Your task to perform on an android device: Do I have any events tomorrow? Image 0: 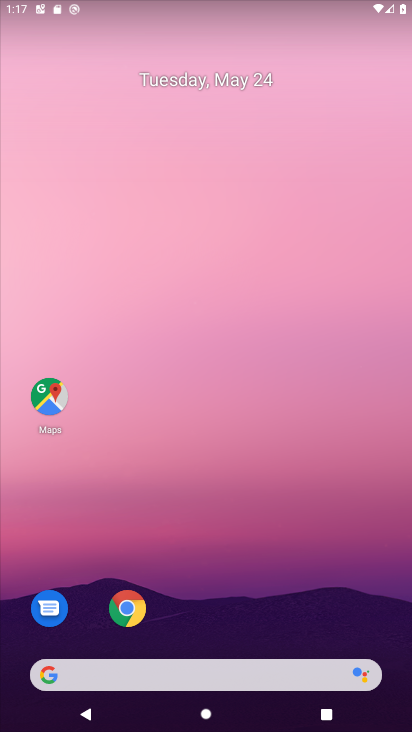
Step 0: drag from (270, 612) to (256, 125)
Your task to perform on an android device: Do I have any events tomorrow? Image 1: 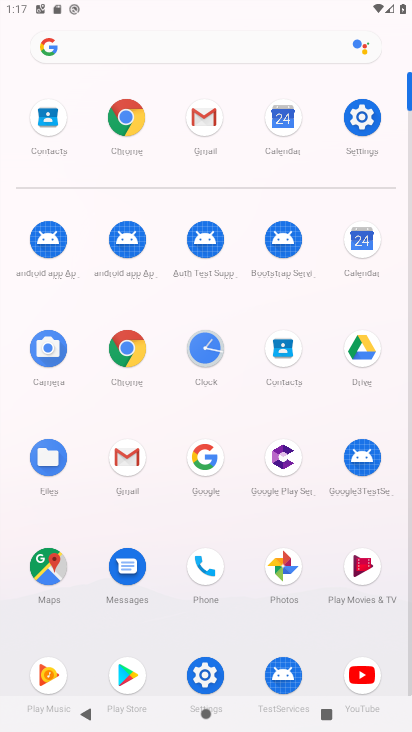
Step 1: click (265, 125)
Your task to perform on an android device: Do I have any events tomorrow? Image 2: 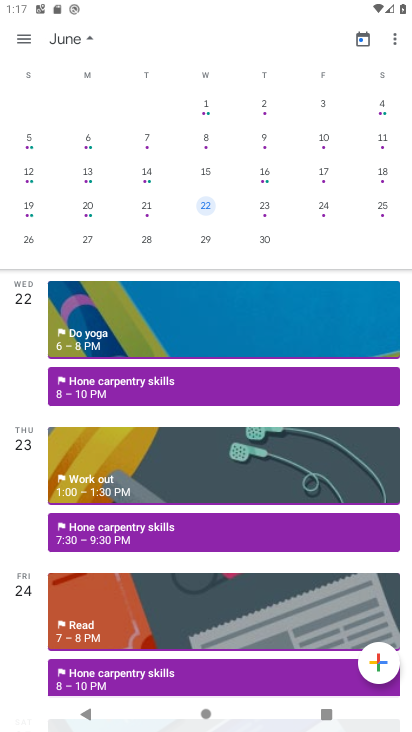
Step 2: task complete